Your task to perform on an android device: What's on my calendar tomorrow? Image 0: 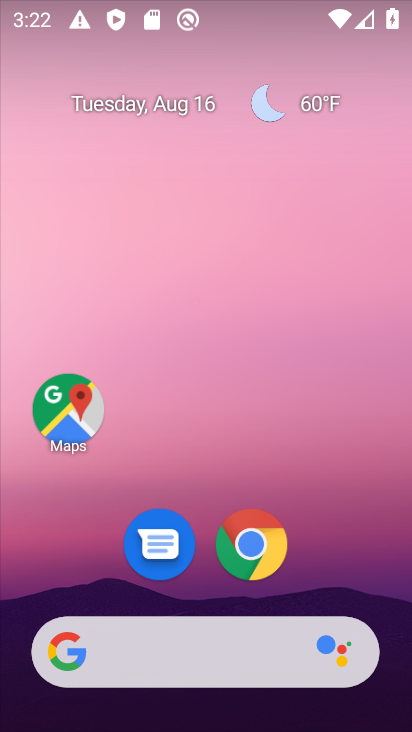
Step 0: drag from (381, 570) to (216, 22)
Your task to perform on an android device: What's on my calendar tomorrow? Image 1: 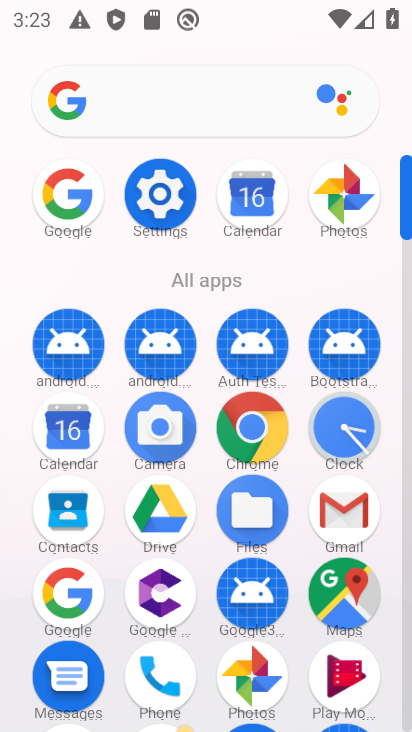
Step 1: click (63, 424)
Your task to perform on an android device: What's on my calendar tomorrow? Image 2: 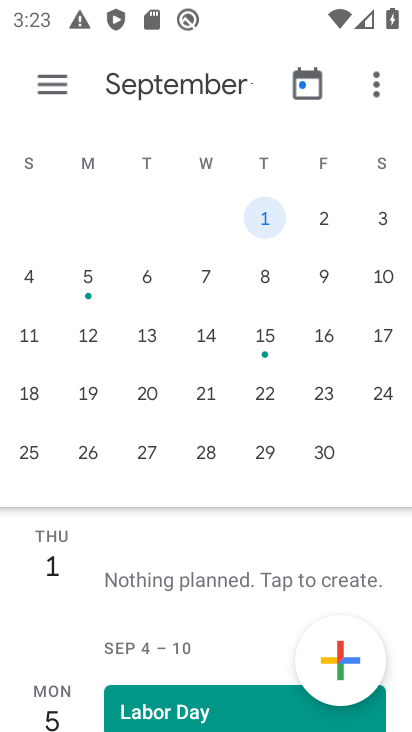
Step 2: task complete